Your task to perform on an android device: Open the web browser Image 0: 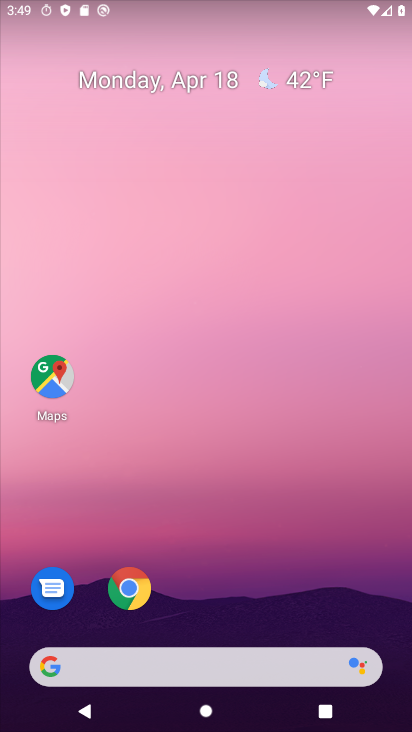
Step 0: click (135, 603)
Your task to perform on an android device: Open the web browser Image 1: 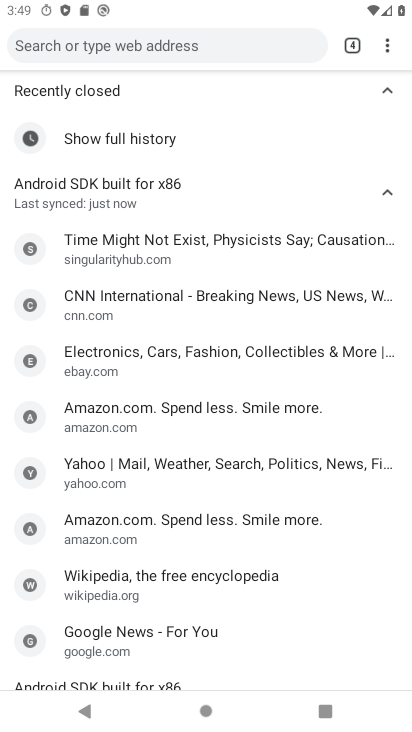
Step 1: task complete